Your task to perform on an android device: toggle airplane mode Image 0: 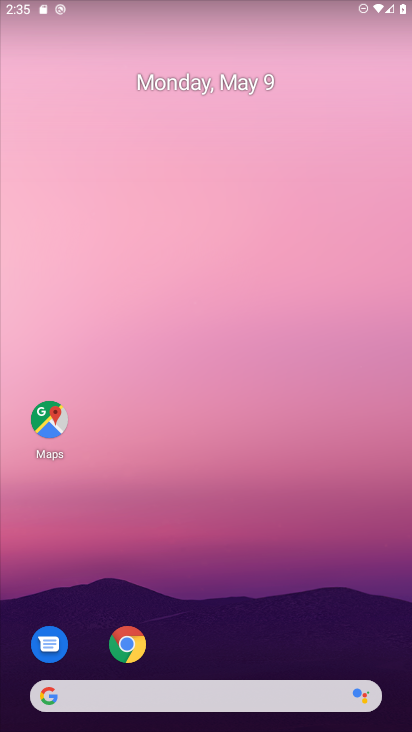
Step 0: drag from (309, 613) to (174, 15)
Your task to perform on an android device: toggle airplane mode Image 1: 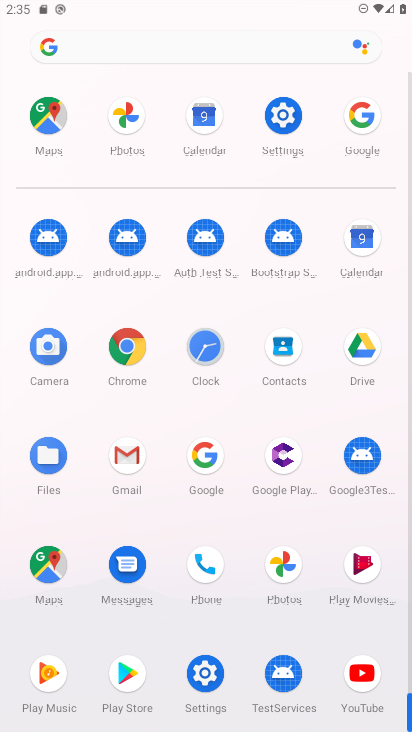
Step 1: drag from (288, 617) to (271, 341)
Your task to perform on an android device: toggle airplane mode Image 2: 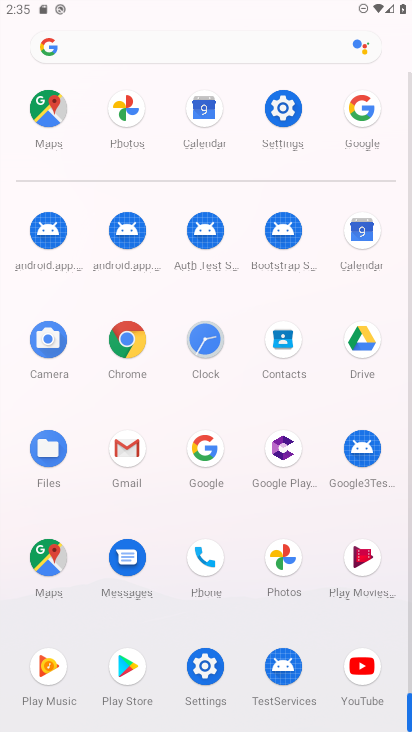
Step 2: click (211, 670)
Your task to perform on an android device: toggle airplane mode Image 3: 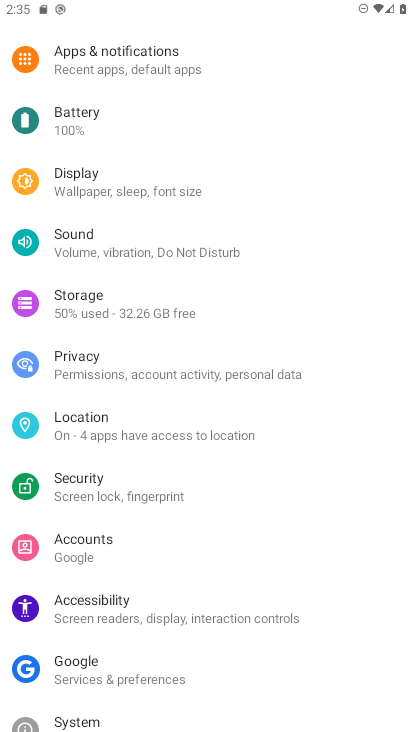
Step 3: drag from (122, 74) to (50, 622)
Your task to perform on an android device: toggle airplane mode Image 4: 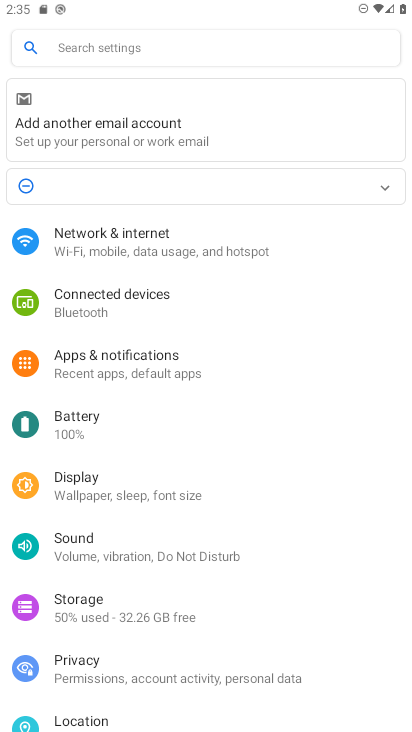
Step 4: click (112, 250)
Your task to perform on an android device: toggle airplane mode Image 5: 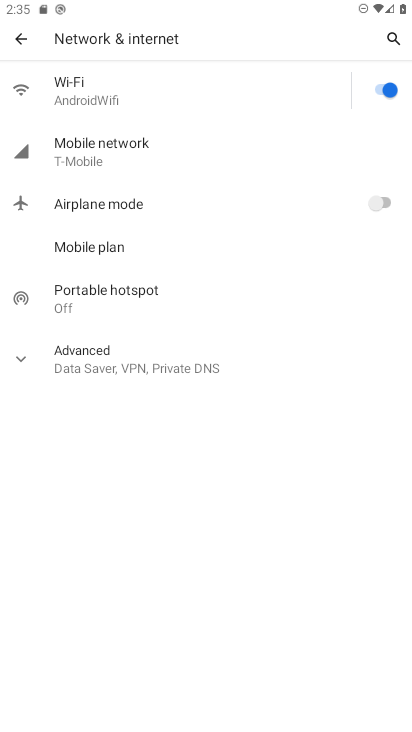
Step 5: click (385, 206)
Your task to perform on an android device: toggle airplane mode Image 6: 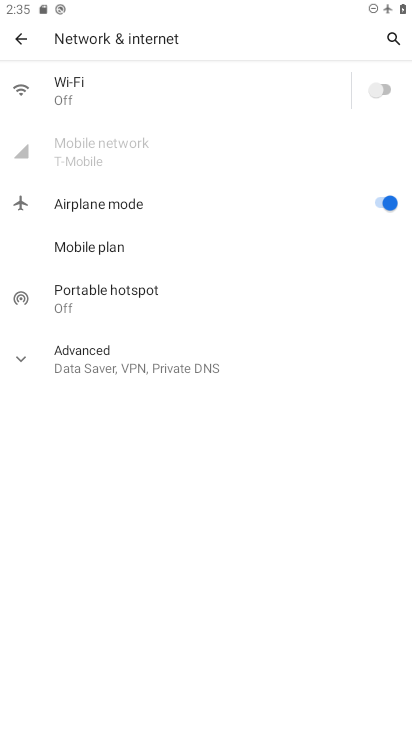
Step 6: task complete